Your task to perform on an android device: Do I have any events tomorrow? Image 0: 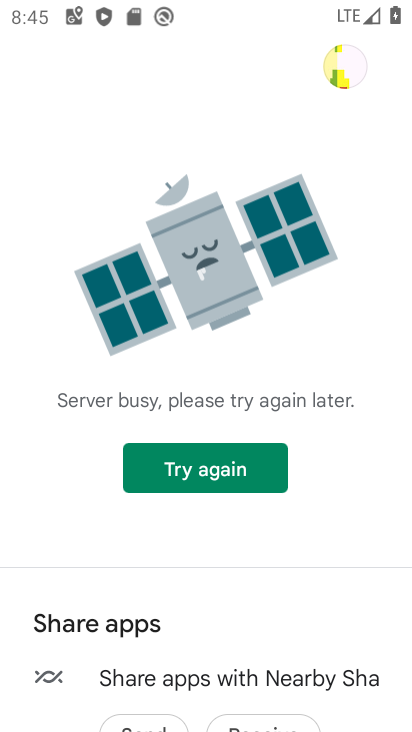
Step 0: press home button
Your task to perform on an android device: Do I have any events tomorrow? Image 1: 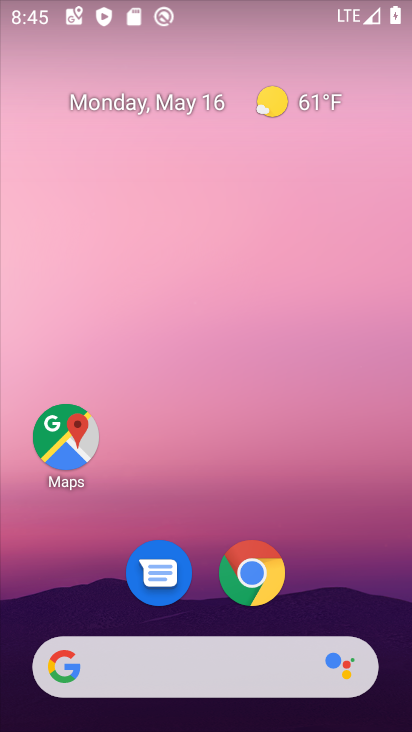
Step 1: drag from (206, 717) to (216, 58)
Your task to perform on an android device: Do I have any events tomorrow? Image 2: 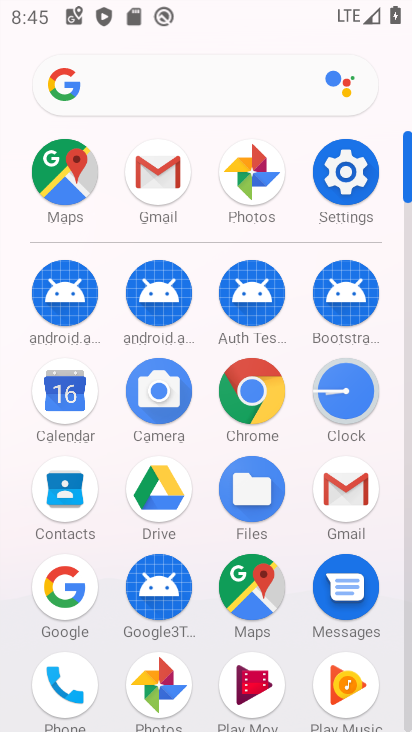
Step 2: click (62, 400)
Your task to perform on an android device: Do I have any events tomorrow? Image 3: 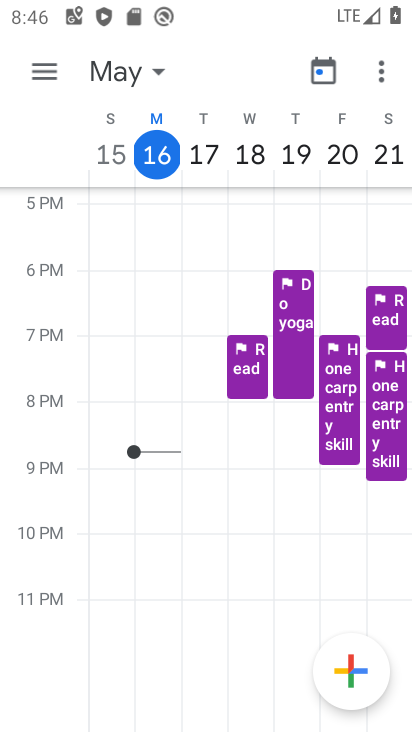
Step 3: click (206, 151)
Your task to perform on an android device: Do I have any events tomorrow? Image 4: 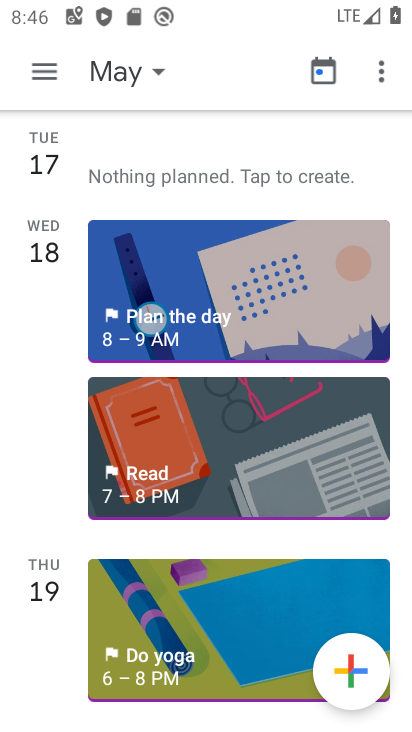
Step 4: click (117, 67)
Your task to perform on an android device: Do I have any events tomorrow? Image 5: 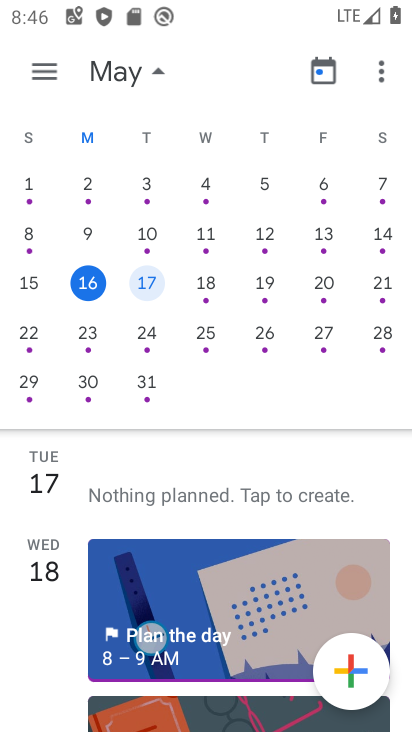
Step 5: click (150, 281)
Your task to perform on an android device: Do I have any events tomorrow? Image 6: 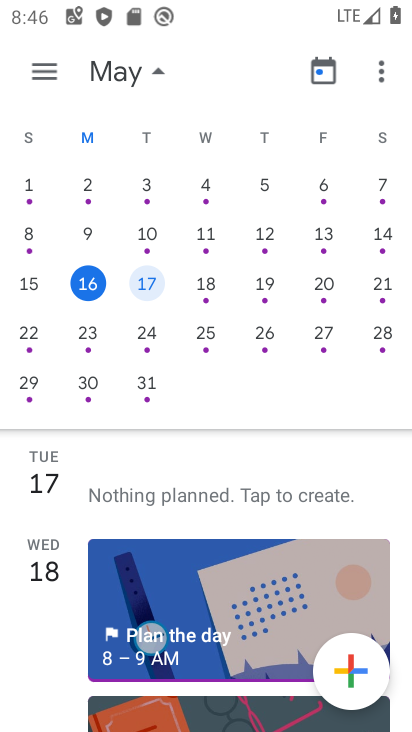
Step 6: task complete